Your task to perform on an android device: Open wifi settings Image 0: 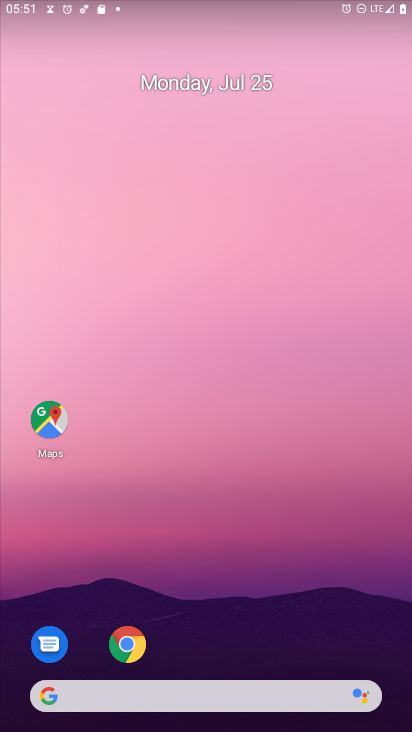
Step 0: press home button
Your task to perform on an android device: Open wifi settings Image 1: 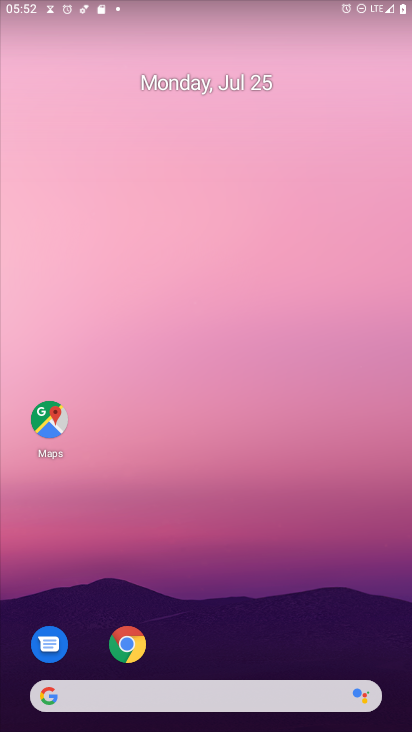
Step 1: drag from (226, 636) to (193, 14)
Your task to perform on an android device: Open wifi settings Image 2: 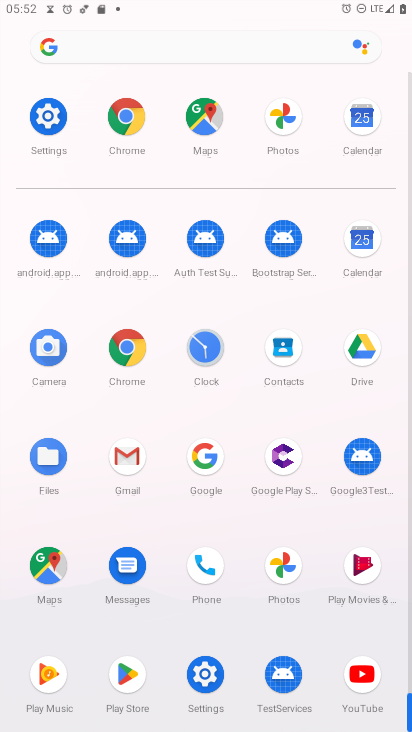
Step 2: click (56, 119)
Your task to perform on an android device: Open wifi settings Image 3: 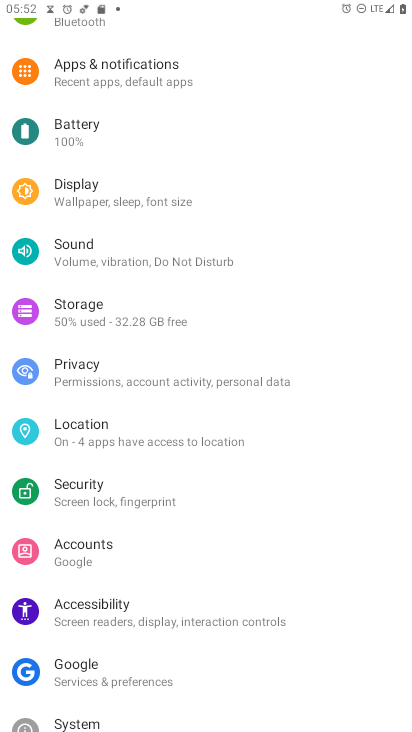
Step 3: drag from (258, 136) to (268, 513)
Your task to perform on an android device: Open wifi settings Image 4: 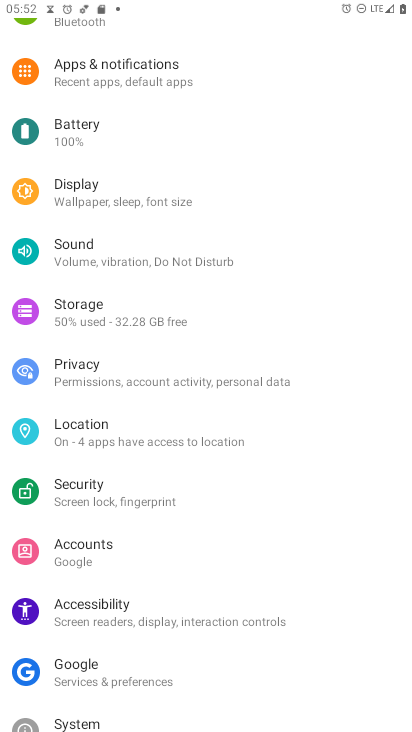
Step 4: drag from (226, 107) to (154, 636)
Your task to perform on an android device: Open wifi settings Image 5: 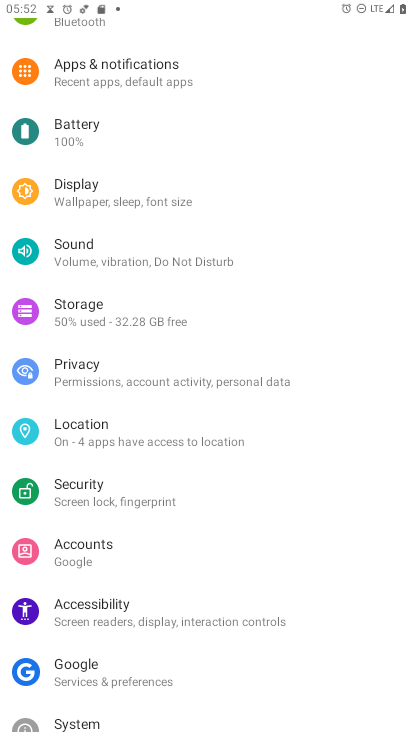
Step 5: drag from (251, 47) to (353, 586)
Your task to perform on an android device: Open wifi settings Image 6: 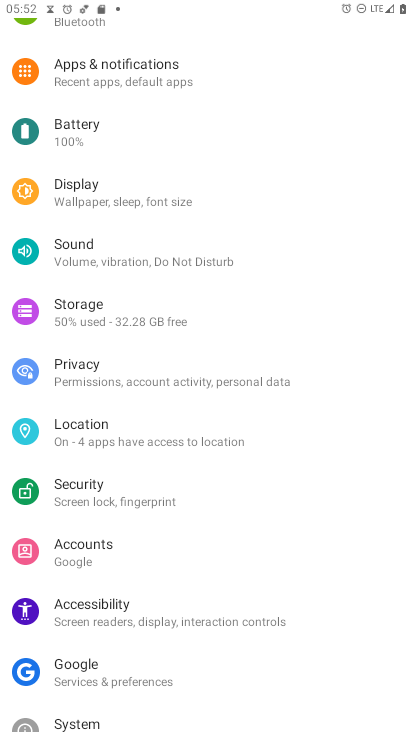
Step 6: drag from (256, 39) to (257, 572)
Your task to perform on an android device: Open wifi settings Image 7: 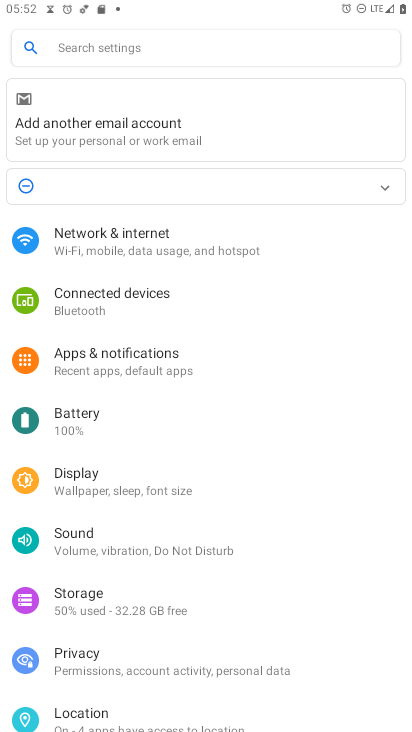
Step 7: click (109, 240)
Your task to perform on an android device: Open wifi settings Image 8: 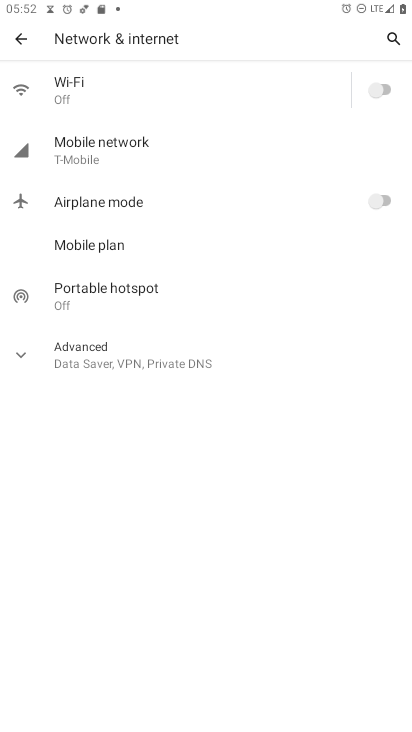
Step 8: click (74, 88)
Your task to perform on an android device: Open wifi settings Image 9: 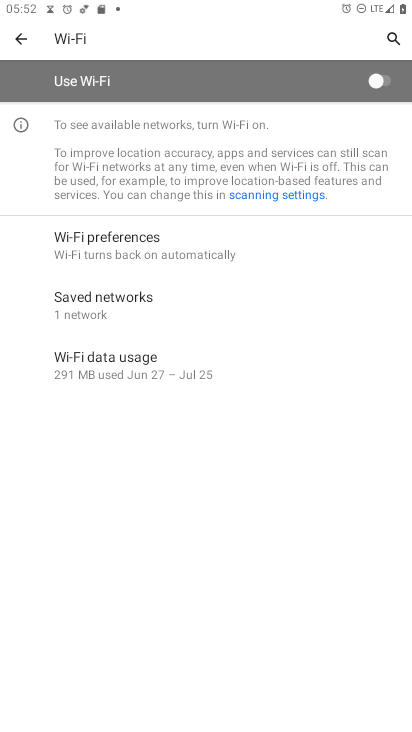
Step 9: click (76, 95)
Your task to perform on an android device: Open wifi settings Image 10: 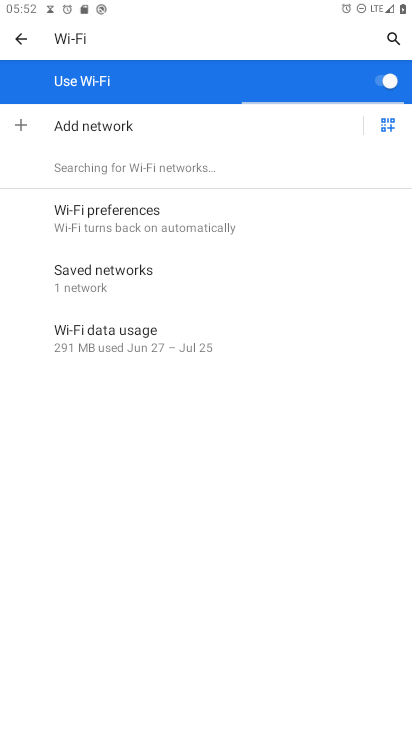
Step 10: task complete